Your task to perform on an android device: Go to Yahoo.com Image 0: 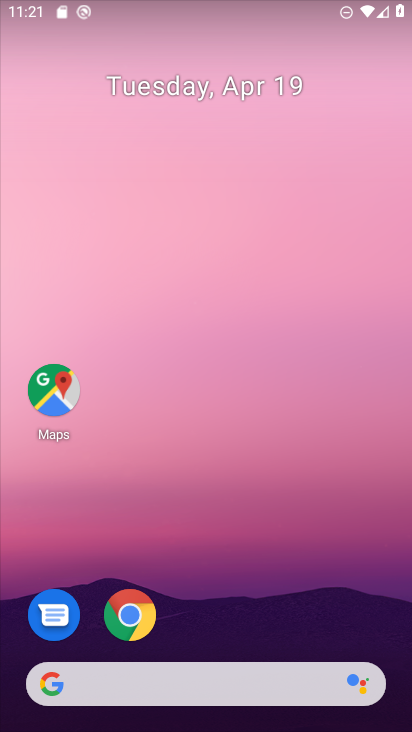
Step 0: click (131, 626)
Your task to perform on an android device: Go to Yahoo.com Image 1: 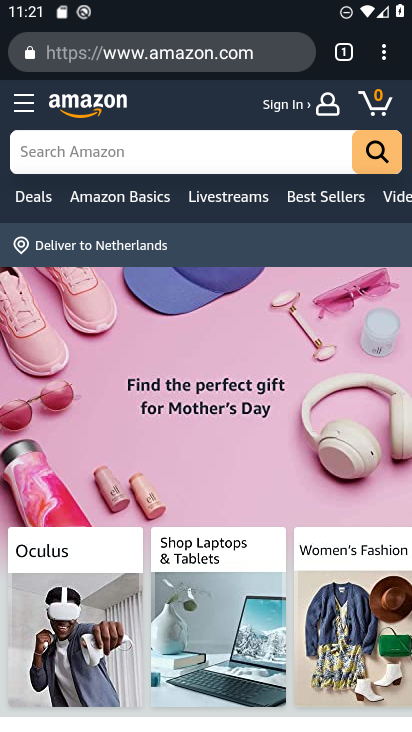
Step 1: click (346, 50)
Your task to perform on an android device: Go to Yahoo.com Image 2: 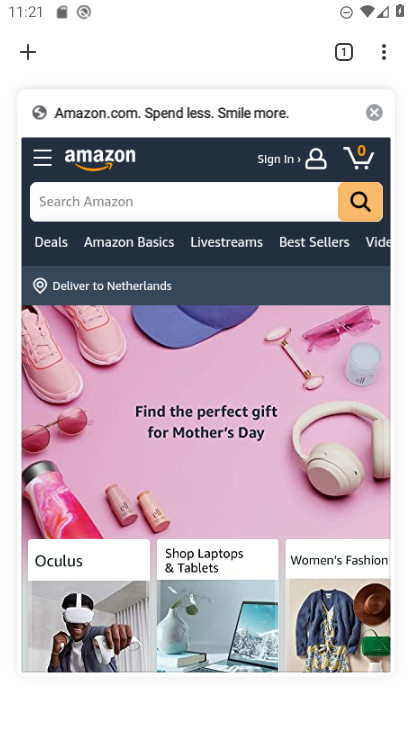
Step 2: click (374, 113)
Your task to perform on an android device: Go to Yahoo.com Image 3: 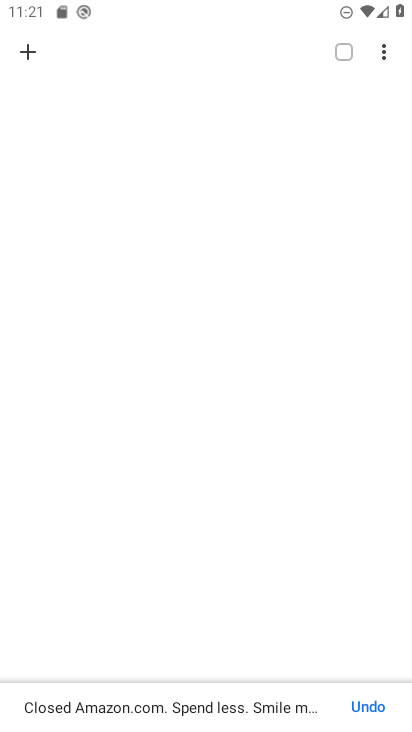
Step 3: click (22, 50)
Your task to perform on an android device: Go to Yahoo.com Image 4: 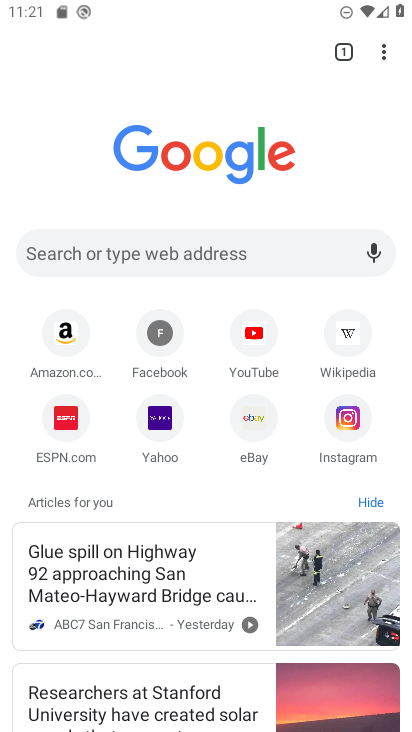
Step 4: click (160, 417)
Your task to perform on an android device: Go to Yahoo.com Image 5: 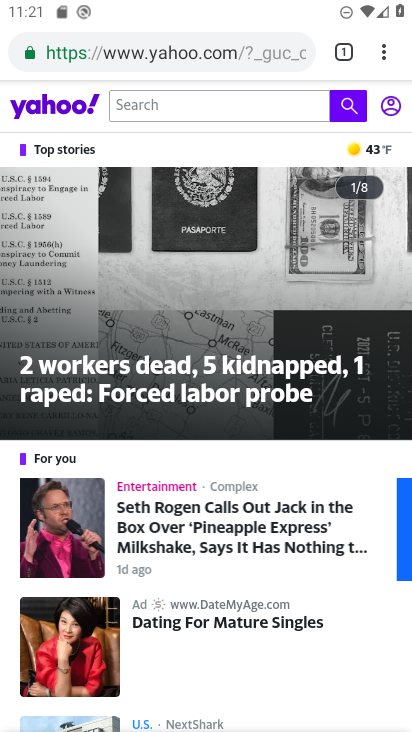
Step 5: task complete